Your task to perform on an android device: Add "bose quietcomfort 35" to the cart on bestbuy.com, then select checkout. Image 0: 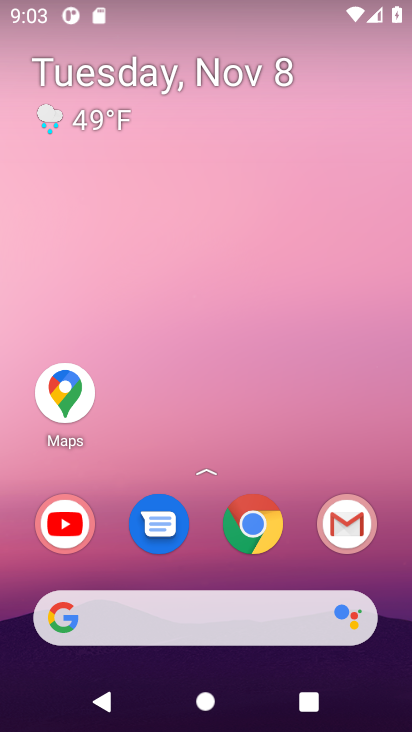
Step 0: click (248, 524)
Your task to perform on an android device: Add "bose quietcomfort 35" to the cart on bestbuy.com, then select checkout. Image 1: 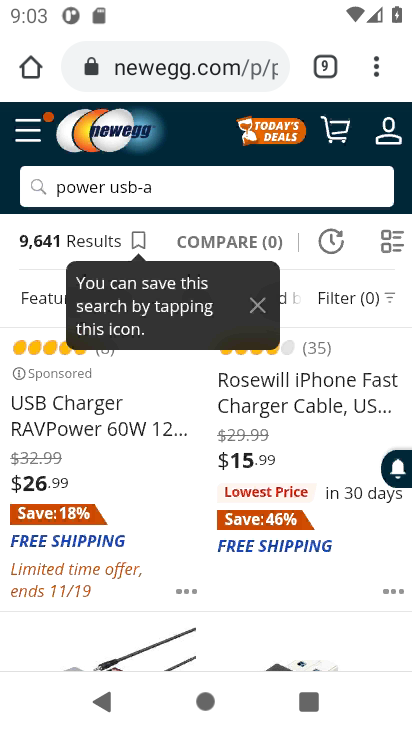
Step 1: click (199, 72)
Your task to perform on an android device: Add "bose quietcomfort 35" to the cart on bestbuy.com, then select checkout. Image 2: 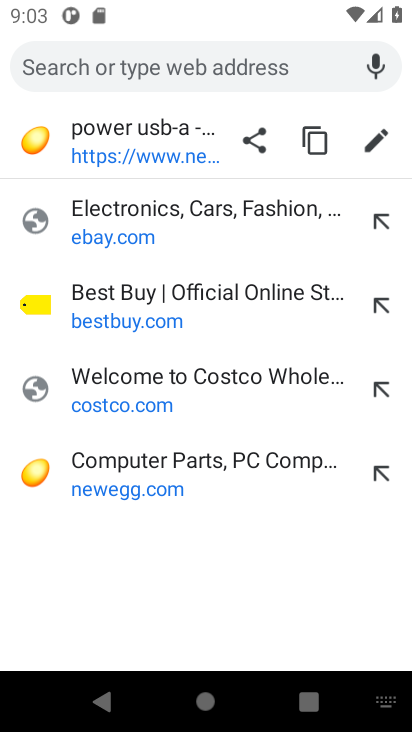
Step 2: click (154, 311)
Your task to perform on an android device: Add "bose quietcomfort 35" to the cart on bestbuy.com, then select checkout. Image 3: 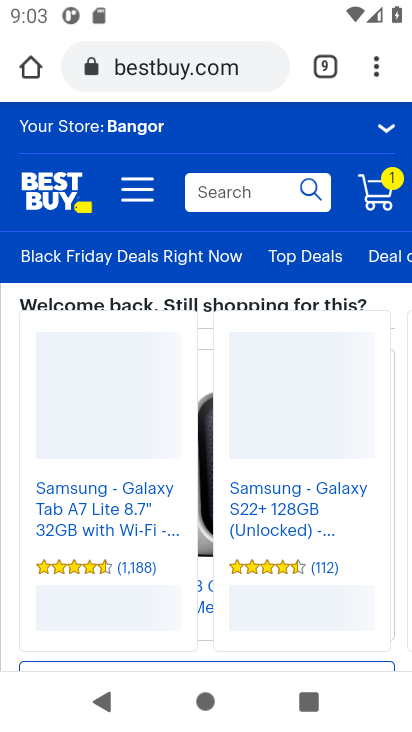
Step 3: click (268, 192)
Your task to perform on an android device: Add "bose quietcomfort 35" to the cart on bestbuy.com, then select checkout. Image 4: 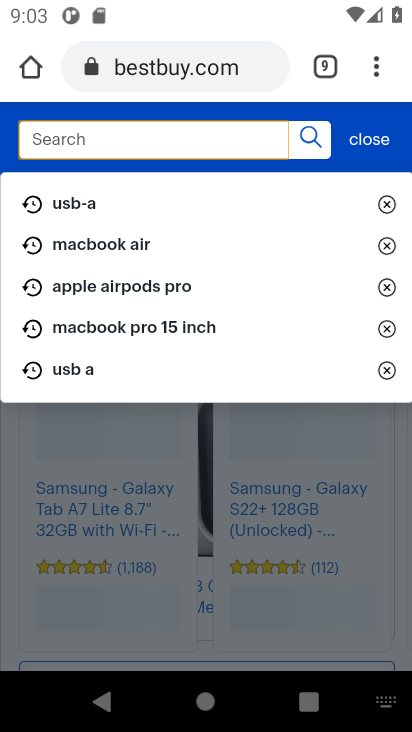
Step 4: type "bose quietcomfort 35"
Your task to perform on an android device: Add "bose quietcomfort 35" to the cart on bestbuy.com, then select checkout. Image 5: 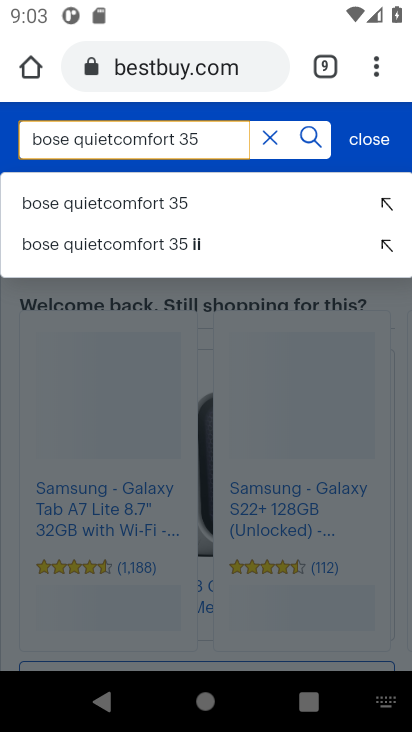
Step 5: click (132, 205)
Your task to perform on an android device: Add "bose quietcomfort 35" to the cart on bestbuy.com, then select checkout. Image 6: 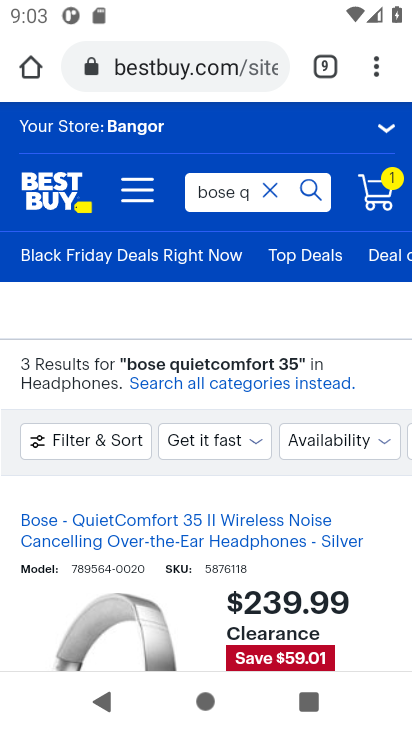
Step 6: task complete